Your task to perform on an android device: Go to sound settings Image 0: 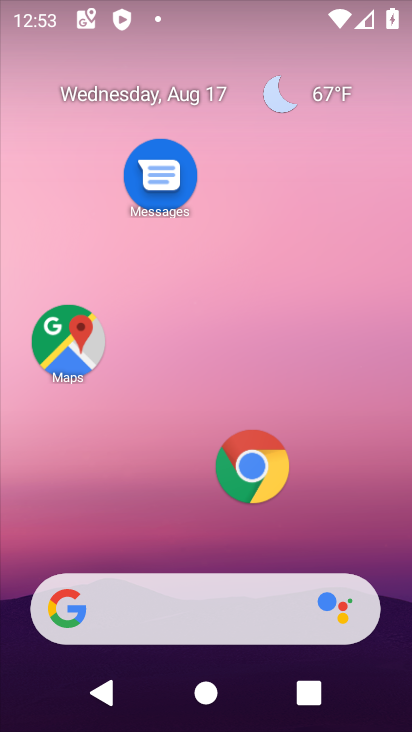
Step 0: click (194, 153)
Your task to perform on an android device: Go to sound settings Image 1: 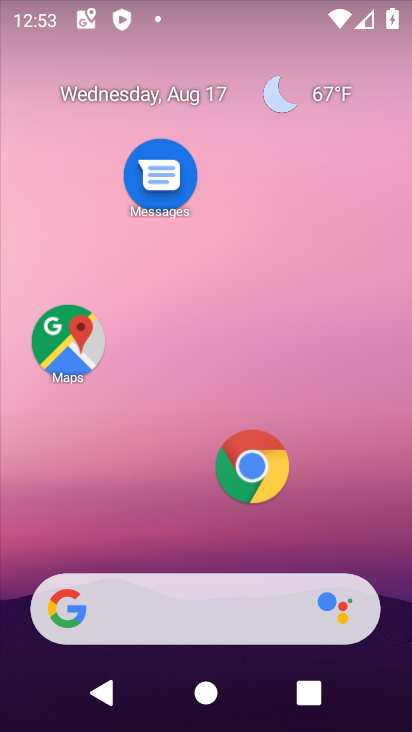
Step 1: drag from (175, 471) to (182, 15)
Your task to perform on an android device: Go to sound settings Image 2: 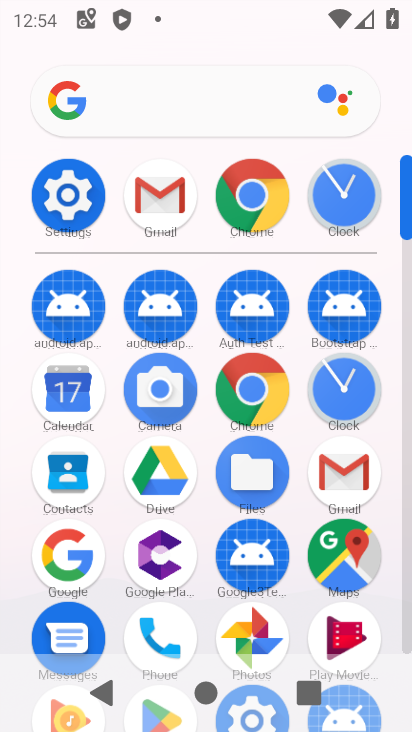
Step 2: drag from (176, 539) to (201, 151)
Your task to perform on an android device: Go to sound settings Image 3: 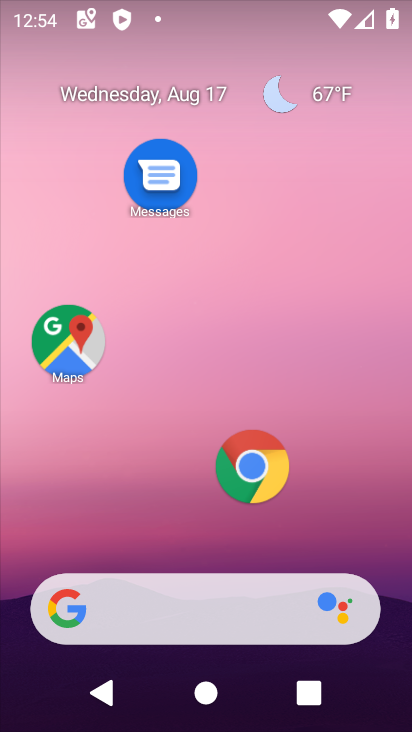
Step 3: drag from (219, 174) to (220, 101)
Your task to perform on an android device: Go to sound settings Image 4: 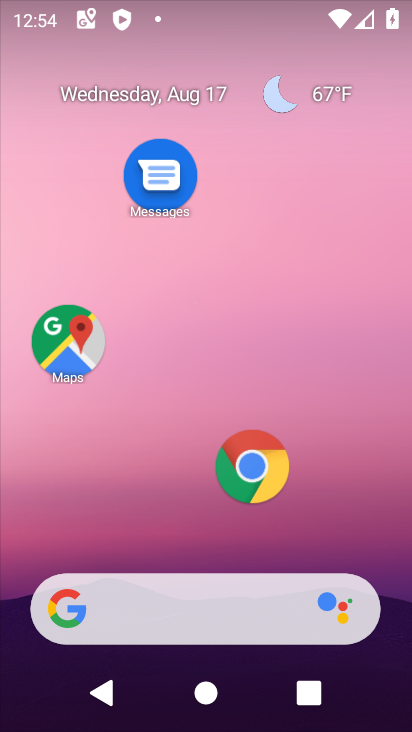
Step 4: click (108, 80)
Your task to perform on an android device: Go to sound settings Image 5: 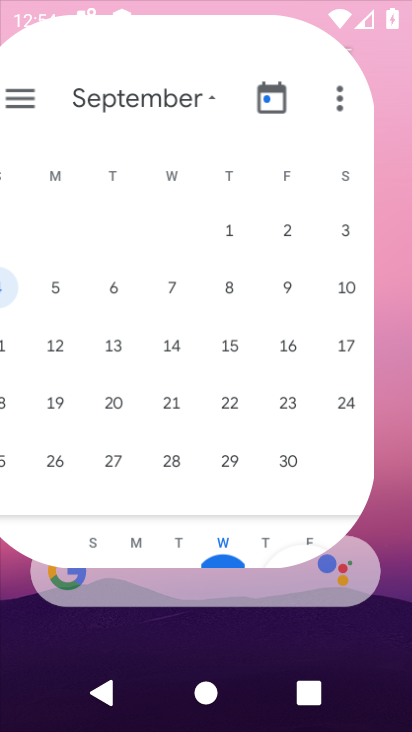
Step 5: press back button
Your task to perform on an android device: Go to sound settings Image 6: 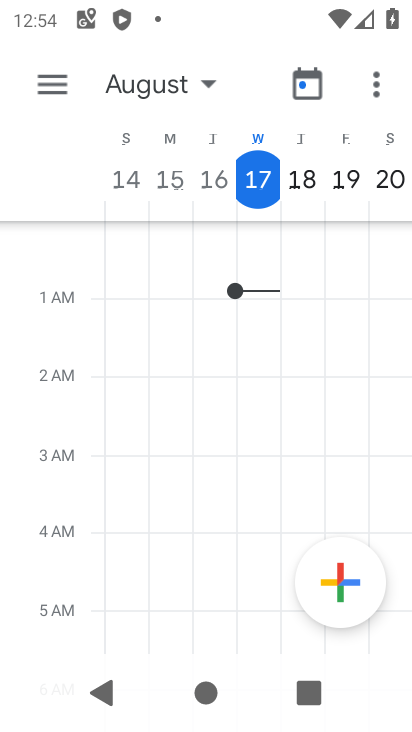
Step 6: press home button
Your task to perform on an android device: Go to sound settings Image 7: 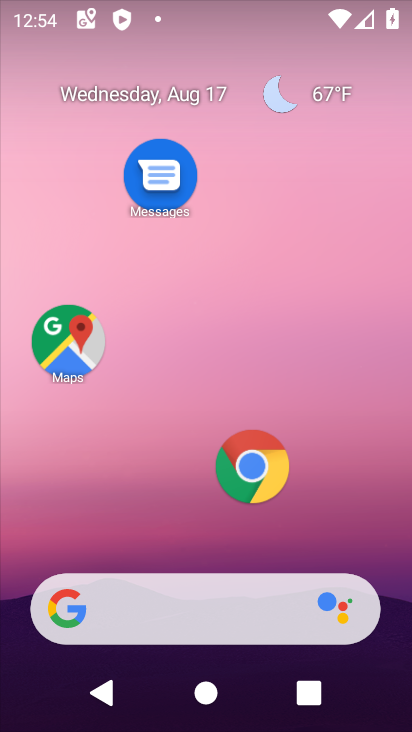
Step 7: drag from (188, 451) to (149, 20)
Your task to perform on an android device: Go to sound settings Image 8: 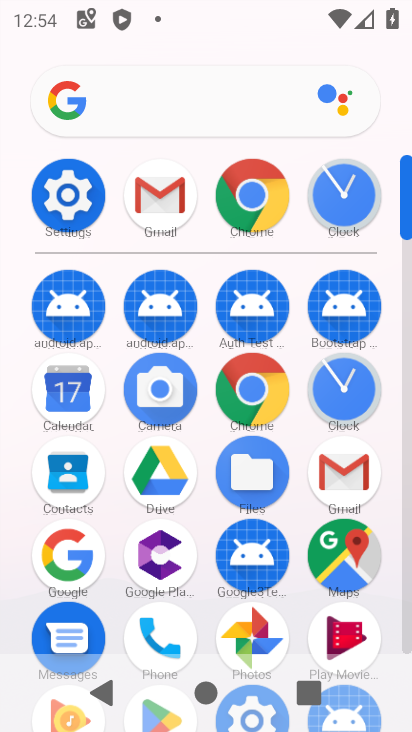
Step 8: drag from (187, 291) to (137, 7)
Your task to perform on an android device: Go to sound settings Image 9: 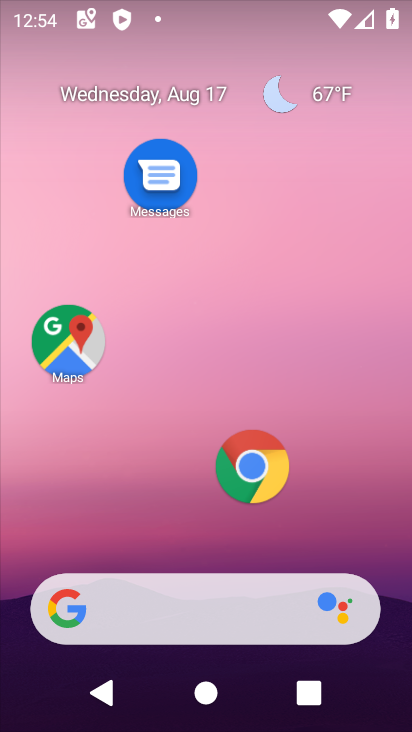
Step 9: drag from (196, 92) to (226, 112)
Your task to perform on an android device: Go to sound settings Image 10: 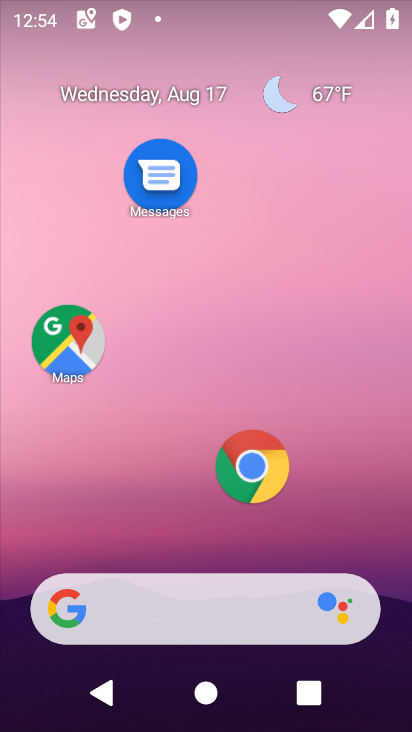
Step 10: click (205, 52)
Your task to perform on an android device: Go to sound settings Image 11: 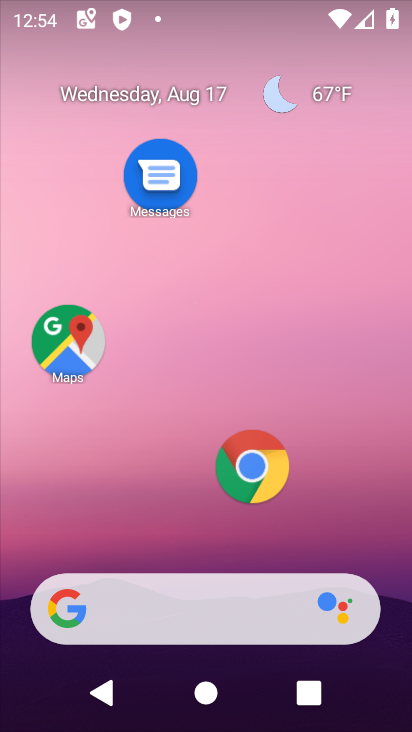
Step 11: drag from (189, 535) to (150, 0)
Your task to perform on an android device: Go to sound settings Image 12: 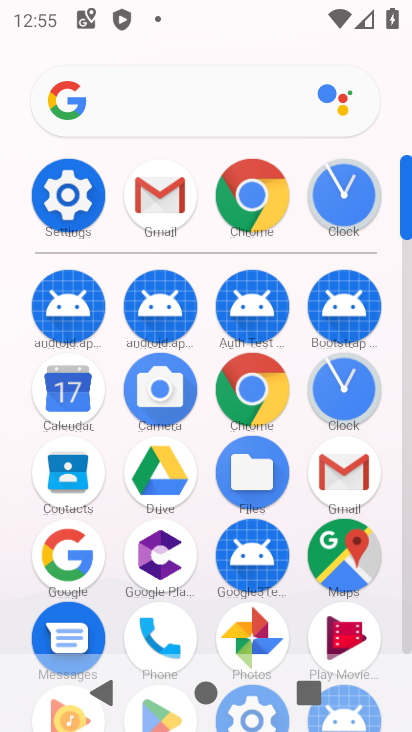
Step 12: click (69, 199)
Your task to perform on an android device: Go to sound settings Image 13: 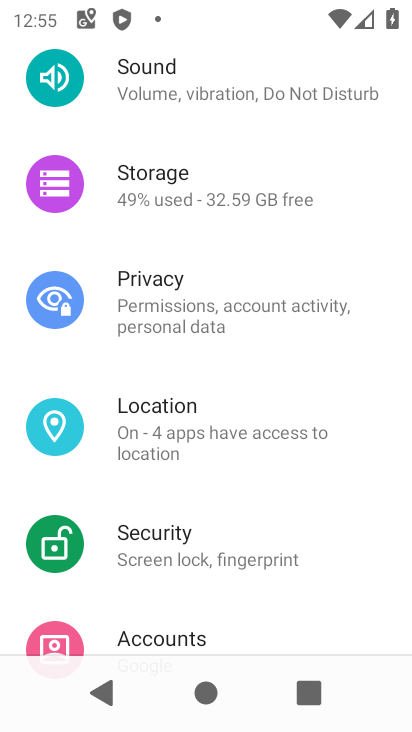
Step 13: drag from (234, 573) to (241, 324)
Your task to perform on an android device: Go to sound settings Image 14: 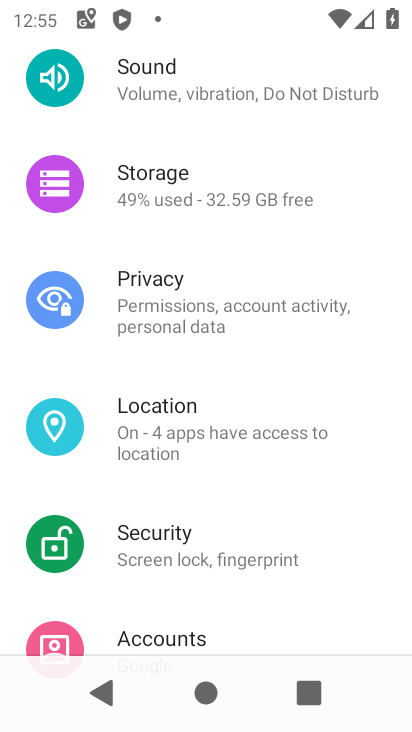
Step 14: click (204, 87)
Your task to perform on an android device: Go to sound settings Image 15: 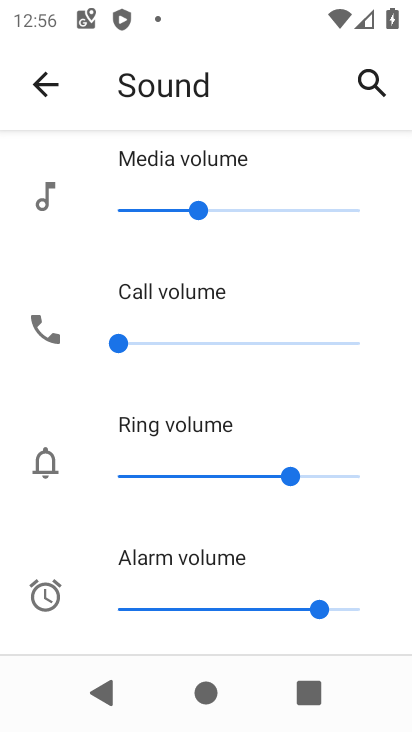
Step 15: task complete